Your task to perform on an android device: Go to calendar. Show me events next week Image 0: 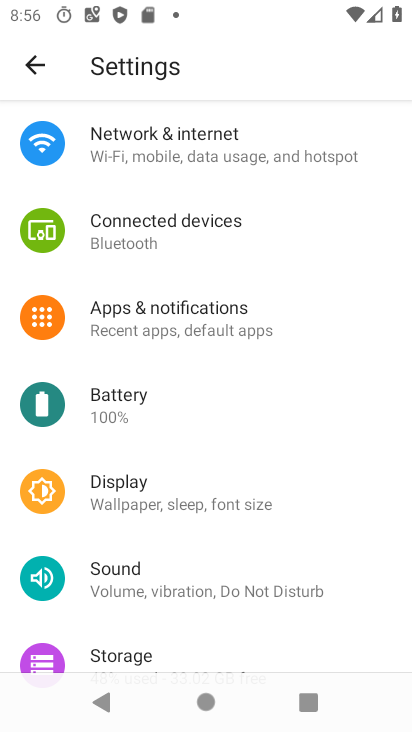
Step 0: press home button
Your task to perform on an android device: Go to calendar. Show me events next week Image 1: 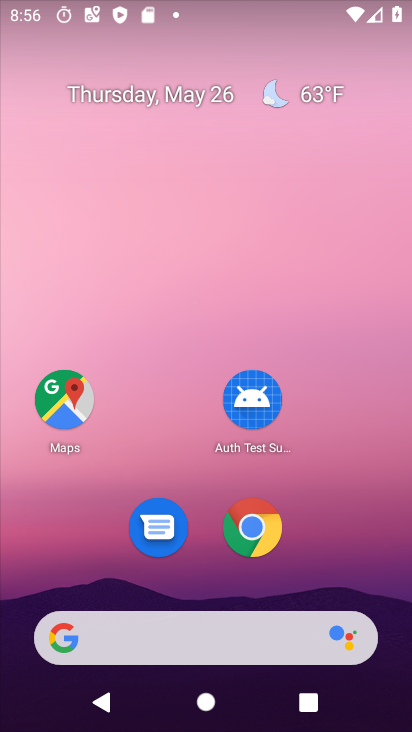
Step 1: drag from (367, 490) to (351, 174)
Your task to perform on an android device: Go to calendar. Show me events next week Image 2: 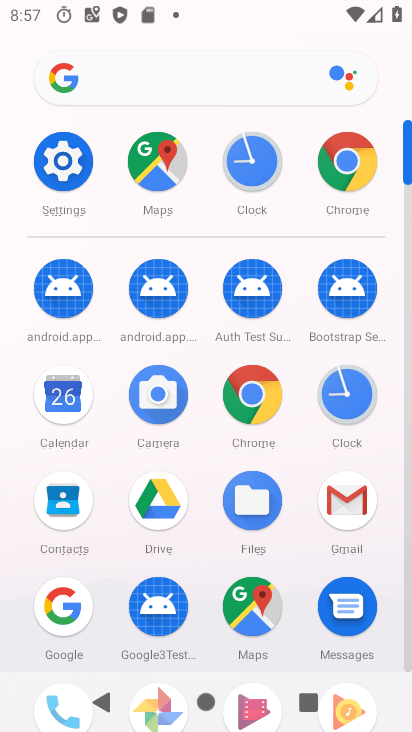
Step 2: click (62, 420)
Your task to perform on an android device: Go to calendar. Show me events next week Image 3: 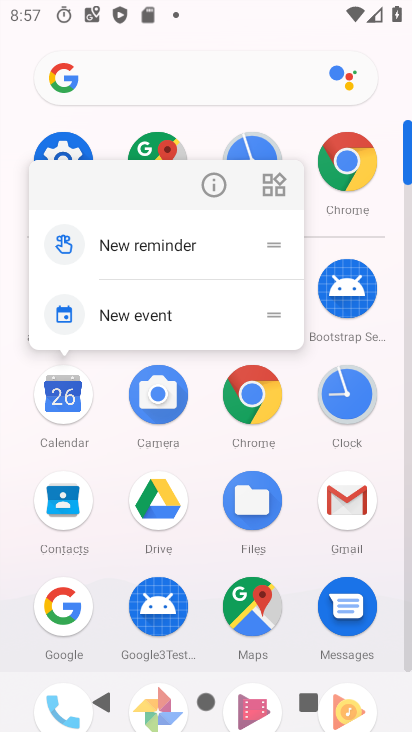
Step 3: click (56, 396)
Your task to perform on an android device: Go to calendar. Show me events next week Image 4: 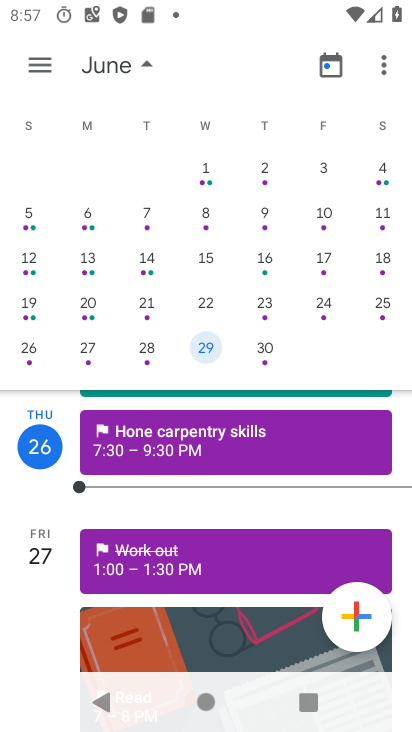
Step 4: drag from (366, 314) to (4, 359)
Your task to perform on an android device: Go to calendar. Show me events next week Image 5: 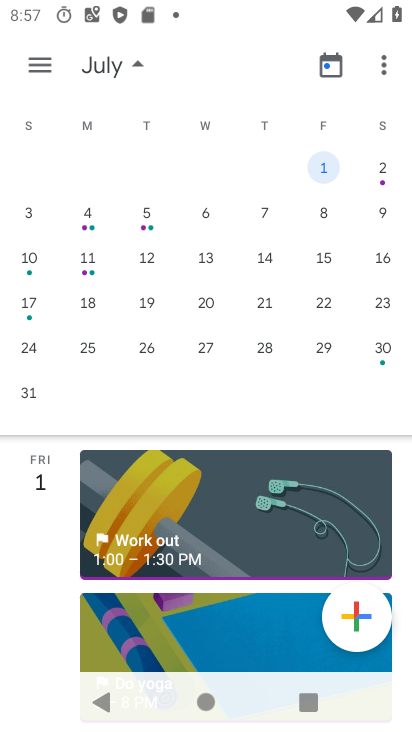
Step 5: click (89, 229)
Your task to perform on an android device: Go to calendar. Show me events next week Image 6: 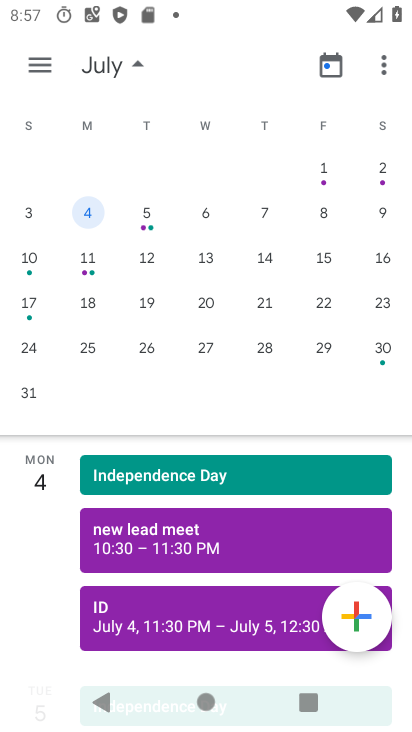
Step 6: task complete